Your task to perform on an android device: change notifications settings Image 0: 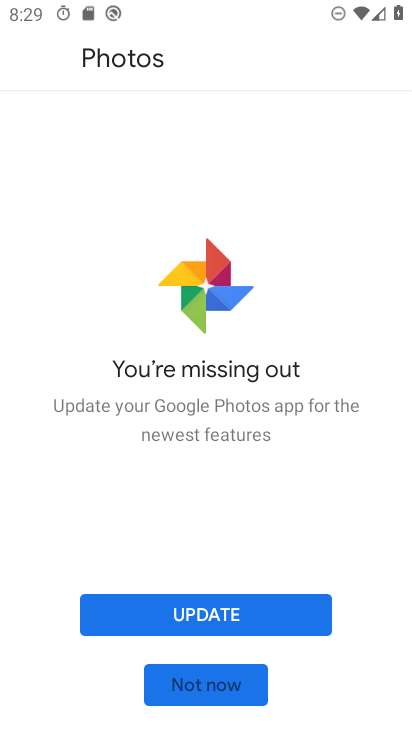
Step 0: press home button
Your task to perform on an android device: change notifications settings Image 1: 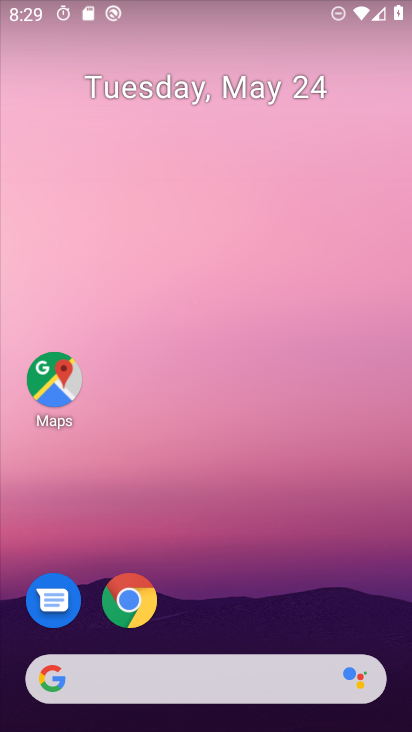
Step 1: drag from (246, 618) to (266, 45)
Your task to perform on an android device: change notifications settings Image 2: 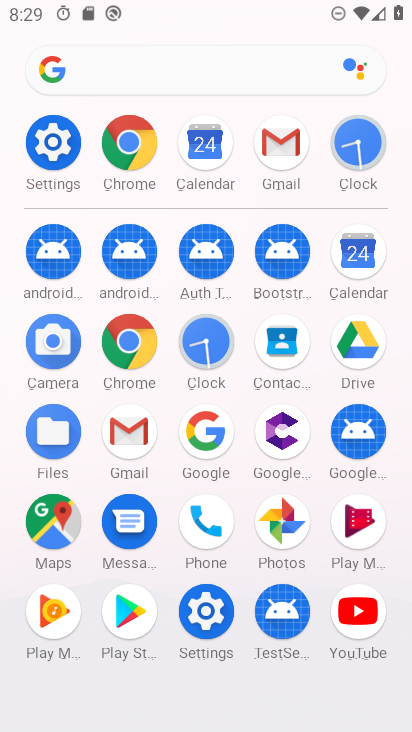
Step 2: click (46, 149)
Your task to perform on an android device: change notifications settings Image 3: 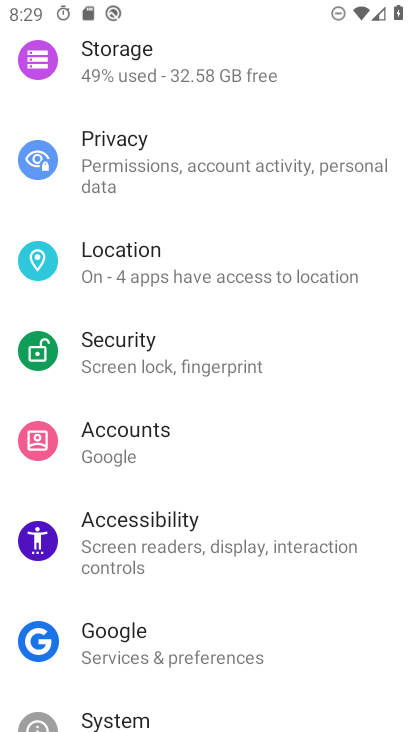
Step 3: drag from (171, 208) to (186, 693)
Your task to perform on an android device: change notifications settings Image 4: 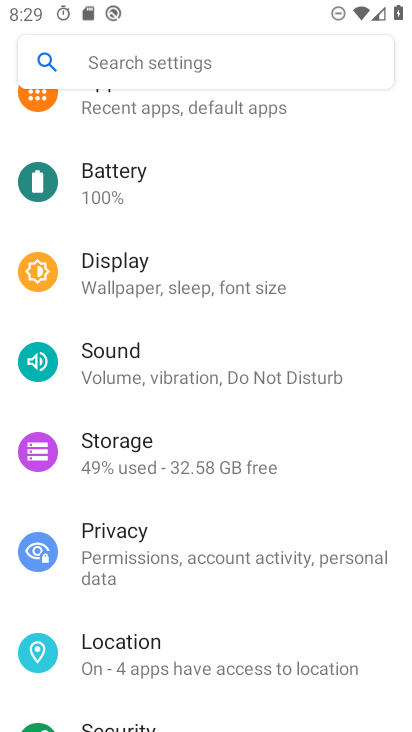
Step 4: drag from (191, 264) to (207, 723)
Your task to perform on an android device: change notifications settings Image 5: 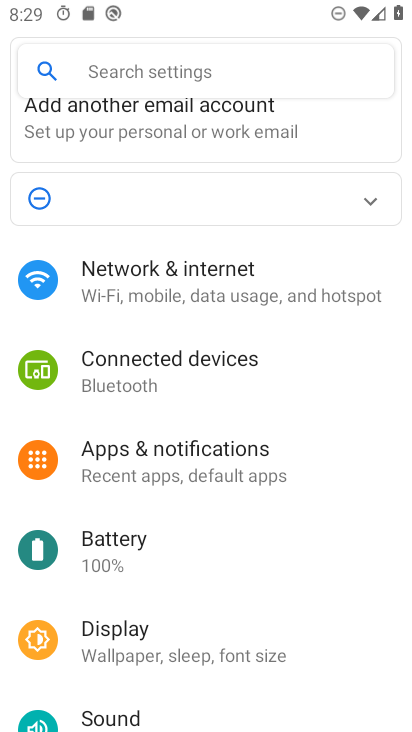
Step 5: click (221, 434)
Your task to perform on an android device: change notifications settings Image 6: 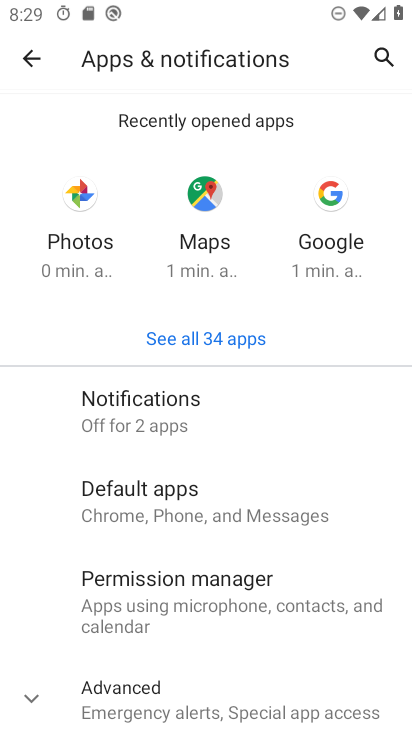
Step 6: click (232, 411)
Your task to perform on an android device: change notifications settings Image 7: 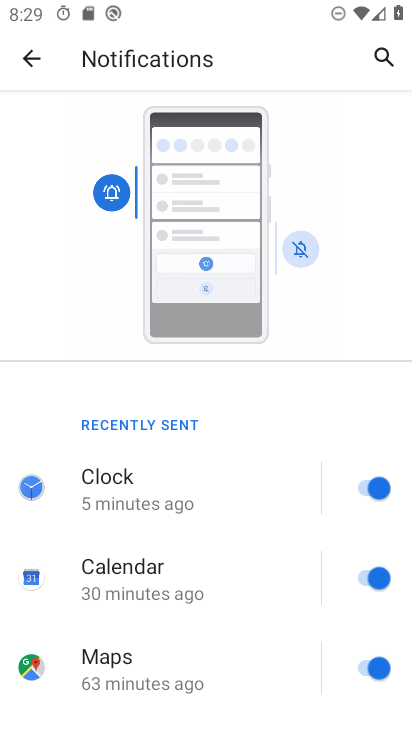
Step 7: drag from (159, 611) to (227, 94)
Your task to perform on an android device: change notifications settings Image 8: 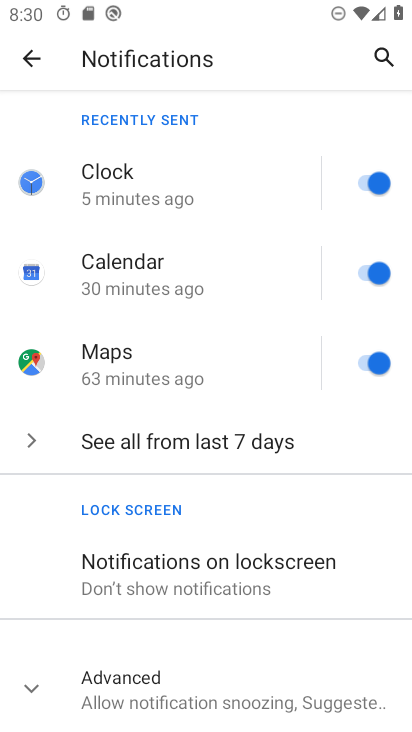
Step 8: click (204, 697)
Your task to perform on an android device: change notifications settings Image 9: 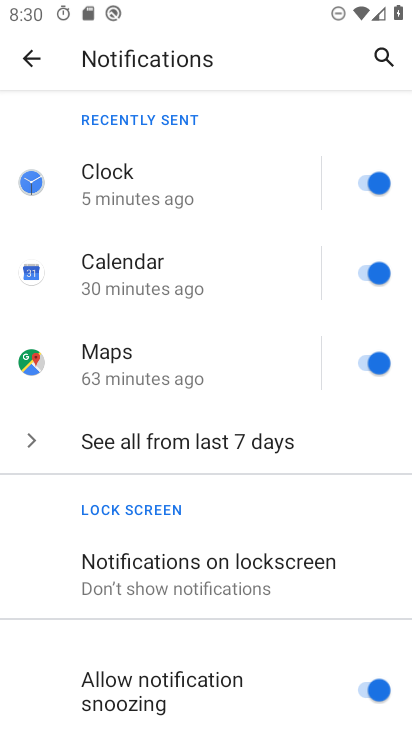
Step 9: drag from (270, 660) to (270, 303)
Your task to perform on an android device: change notifications settings Image 10: 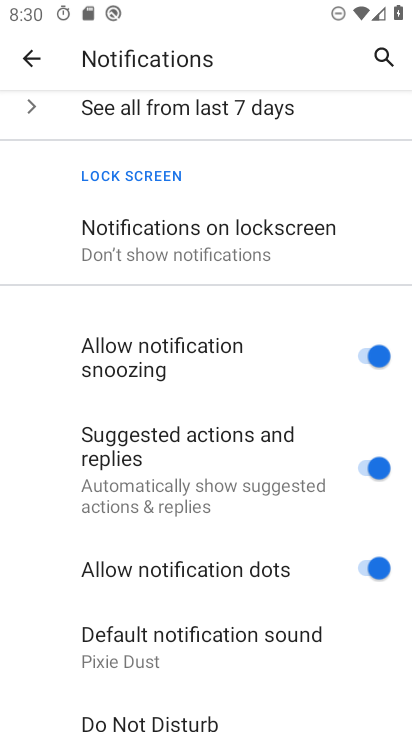
Step 10: click (370, 351)
Your task to perform on an android device: change notifications settings Image 11: 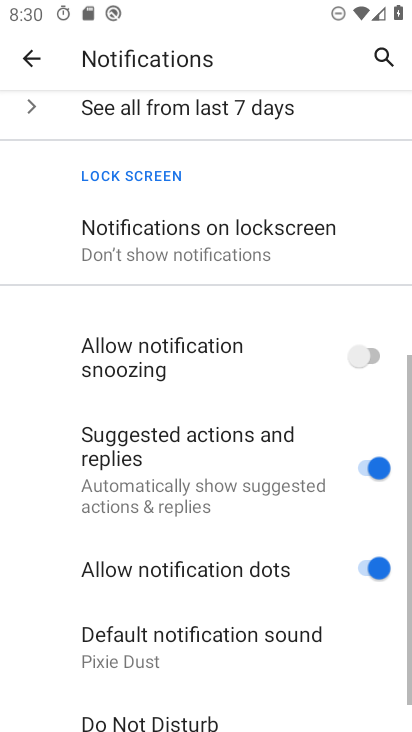
Step 11: task complete